Your task to perform on an android device: Open privacy settings Image 0: 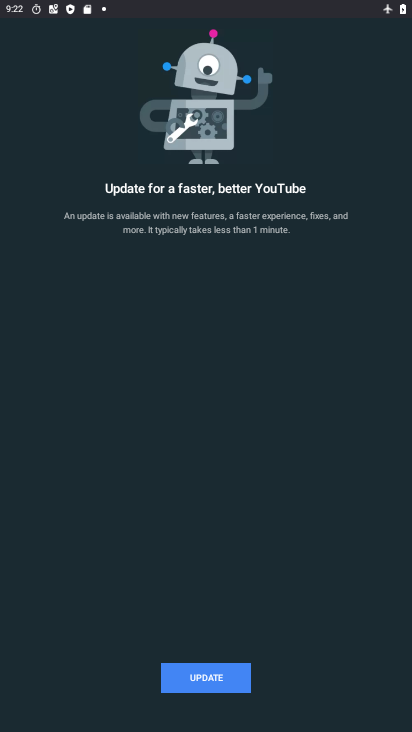
Step 0: press home button
Your task to perform on an android device: Open privacy settings Image 1: 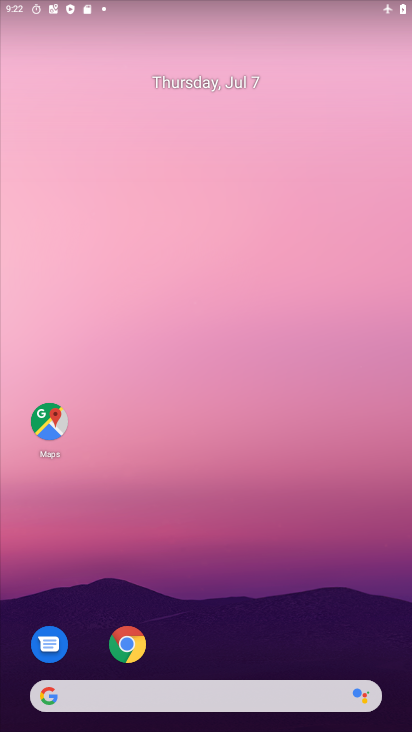
Step 1: drag from (283, 577) to (205, 25)
Your task to perform on an android device: Open privacy settings Image 2: 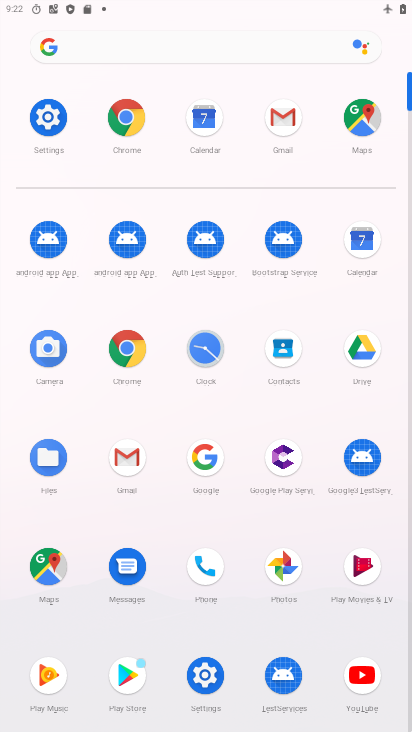
Step 2: click (54, 120)
Your task to perform on an android device: Open privacy settings Image 3: 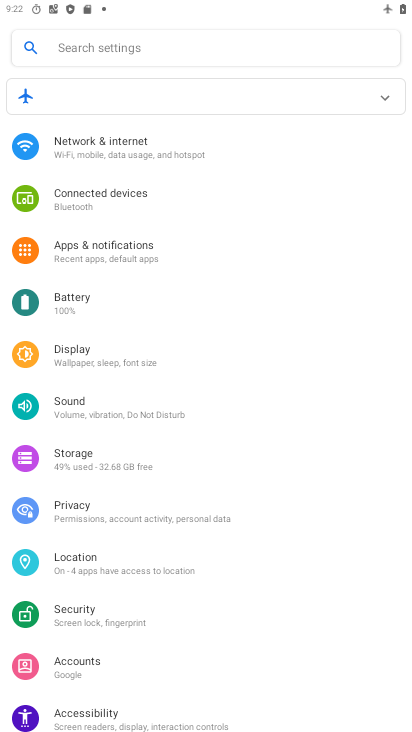
Step 3: click (80, 515)
Your task to perform on an android device: Open privacy settings Image 4: 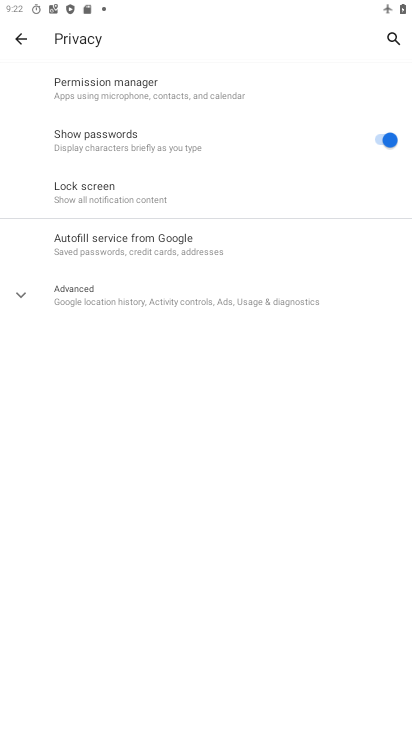
Step 4: task complete